Your task to perform on an android device: open chrome privacy settings Image 0: 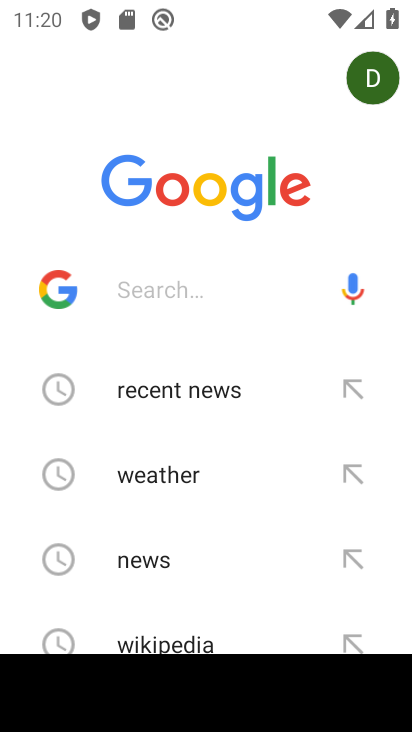
Step 0: press home button
Your task to perform on an android device: open chrome privacy settings Image 1: 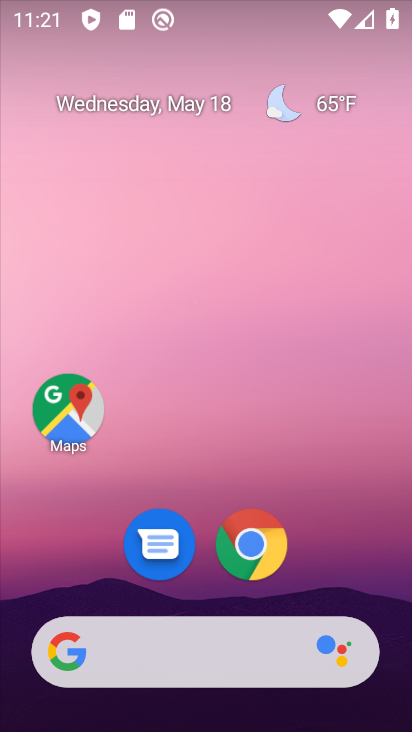
Step 1: drag from (369, 576) to (357, 144)
Your task to perform on an android device: open chrome privacy settings Image 2: 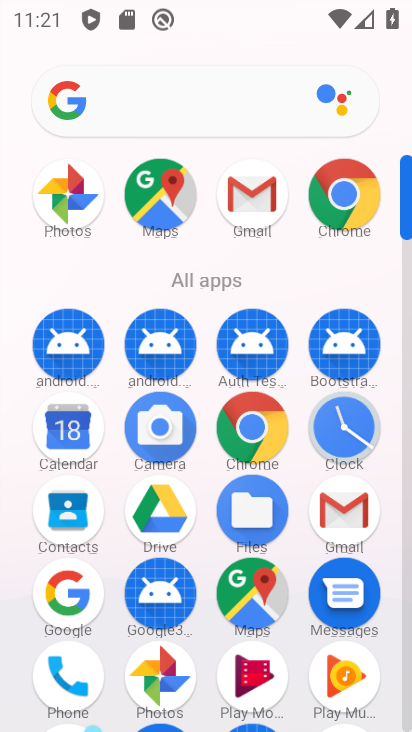
Step 2: click (255, 435)
Your task to perform on an android device: open chrome privacy settings Image 3: 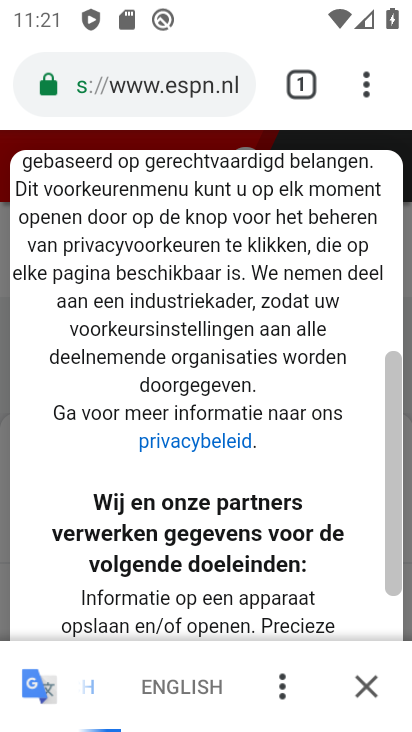
Step 3: click (370, 95)
Your task to perform on an android device: open chrome privacy settings Image 4: 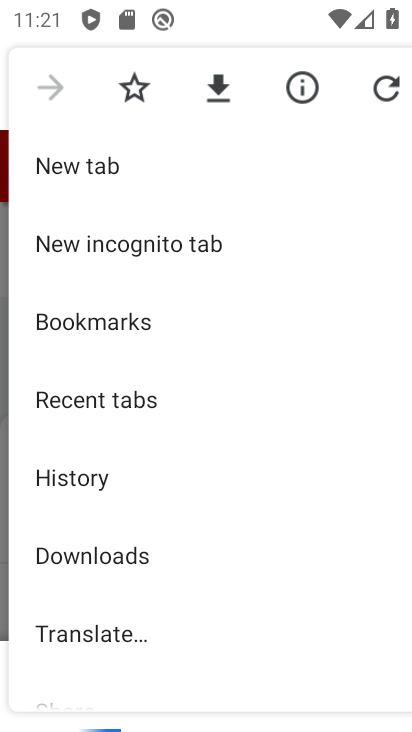
Step 4: drag from (303, 524) to (300, 384)
Your task to perform on an android device: open chrome privacy settings Image 5: 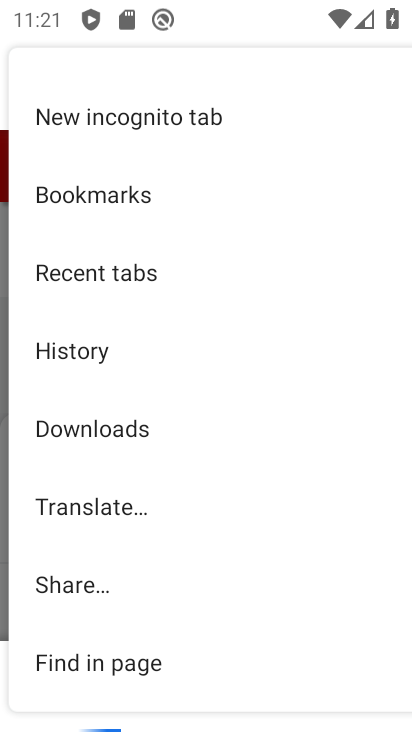
Step 5: drag from (303, 561) to (311, 392)
Your task to perform on an android device: open chrome privacy settings Image 6: 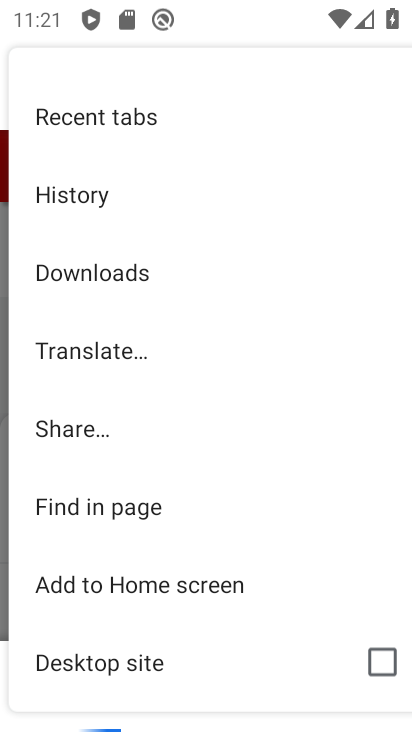
Step 6: drag from (277, 572) to (290, 368)
Your task to perform on an android device: open chrome privacy settings Image 7: 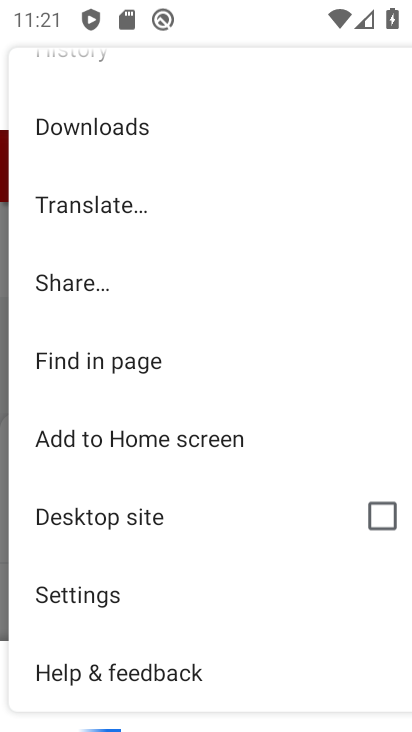
Step 7: click (120, 620)
Your task to perform on an android device: open chrome privacy settings Image 8: 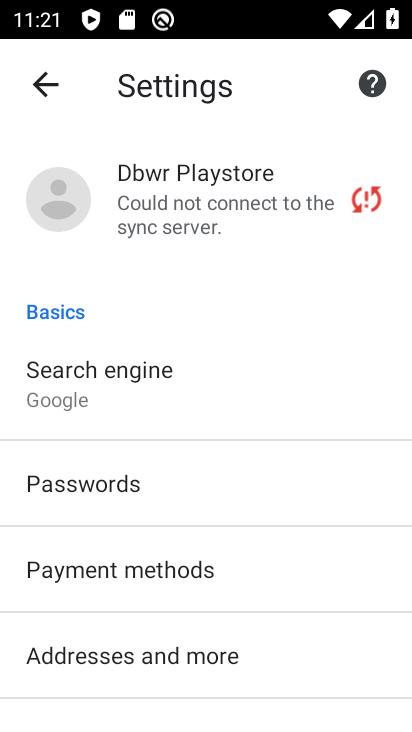
Step 8: drag from (301, 603) to (303, 441)
Your task to perform on an android device: open chrome privacy settings Image 9: 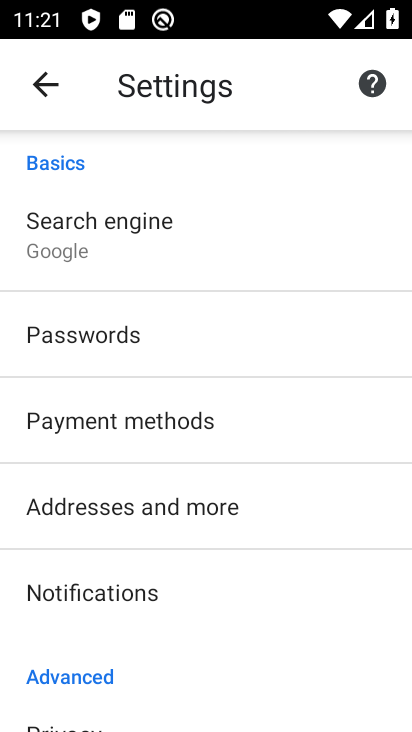
Step 9: drag from (300, 588) to (312, 453)
Your task to perform on an android device: open chrome privacy settings Image 10: 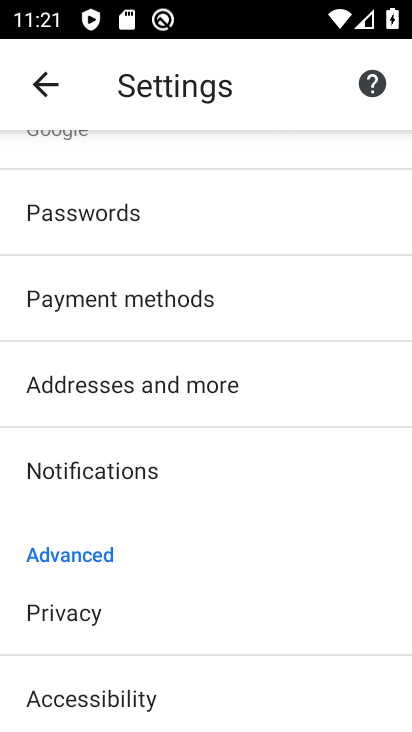
Step 10: drag from (311, 542) to (309, 489)
Your task to perform on an android device: open chrome privacy settings Image 11: 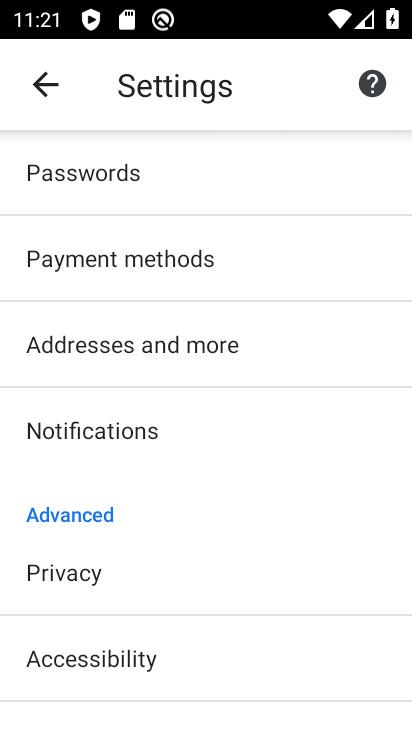
Step 11: drag from (285, 642) to (295, 456)
Your task to perform on an android device: open chrome privacy settings Image 12: 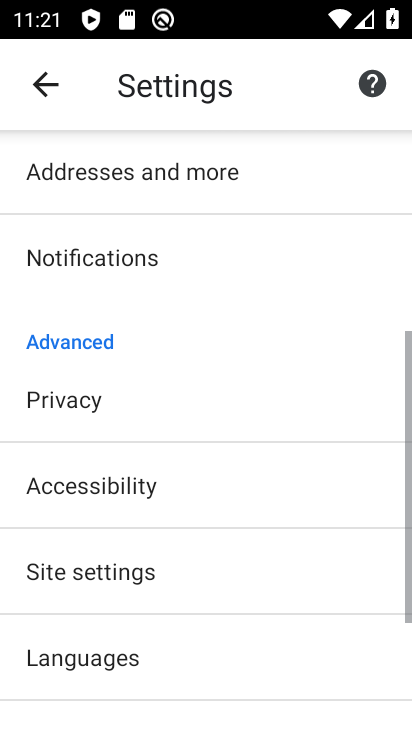
Step 12: drag from (287, 659) to (295, 428)
Your task to perform on an android device: open chrome privacy settings Image 13: 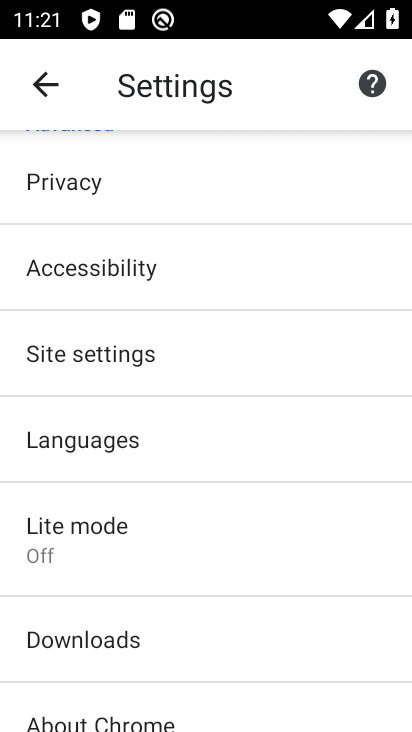
Step 13: drag from (309, 655) to (304, 439)
Your task to perform on an android device: open chrome privacy settings Image 14: 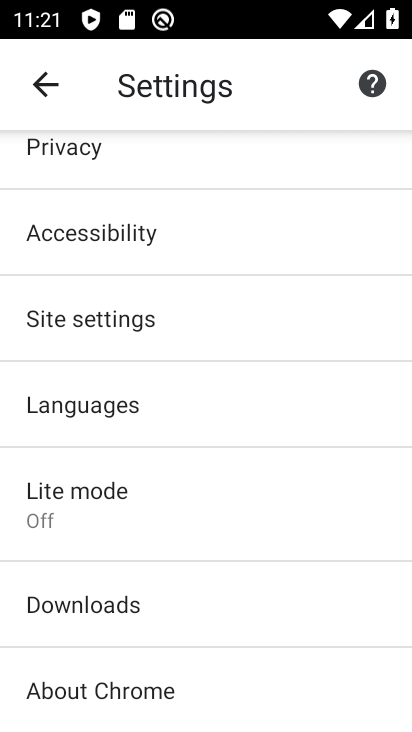
Step 14: drag from (297, 353) to (286, 555)
Your task to perform on an android device: open chrome privacy settings Image 15: 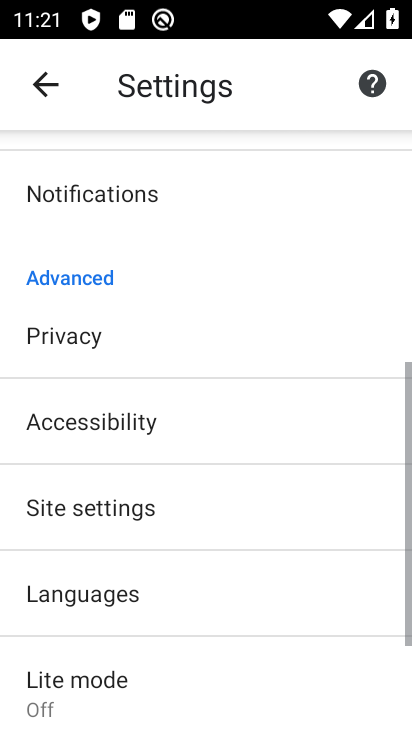
Step 15: click (140, 281)
Your task to perform on an android device: open chrome privacy settings Image 16: 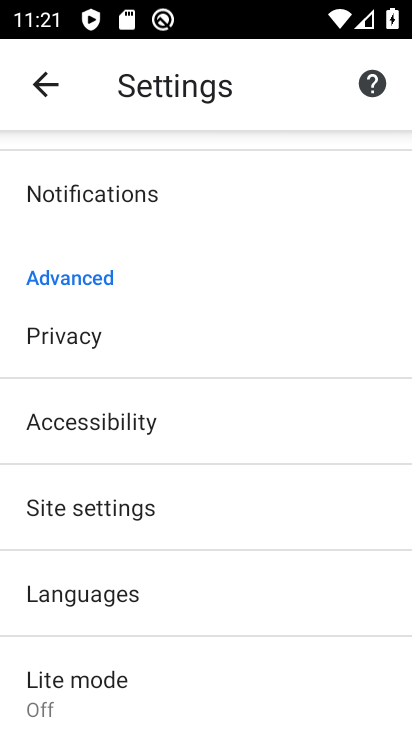
Step 16: click (63, 330)
Your task to perform on an android device: open chrome privacy settings Image 17: 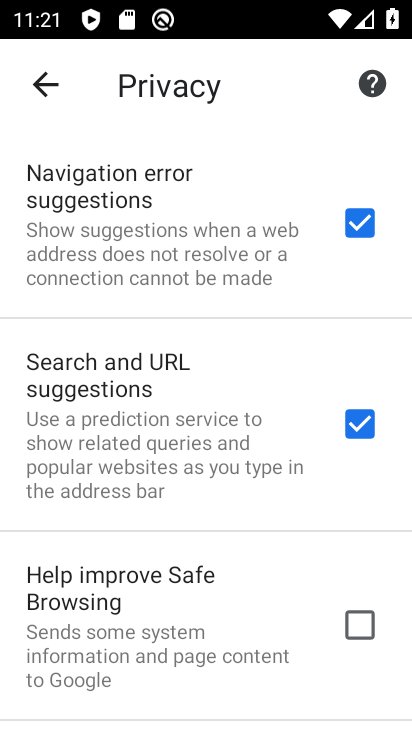
Step 17: task complete